Your task to perform on an android device: open app "Microsoft Outlook" (install if not already installed) and go to login screen Image 0: 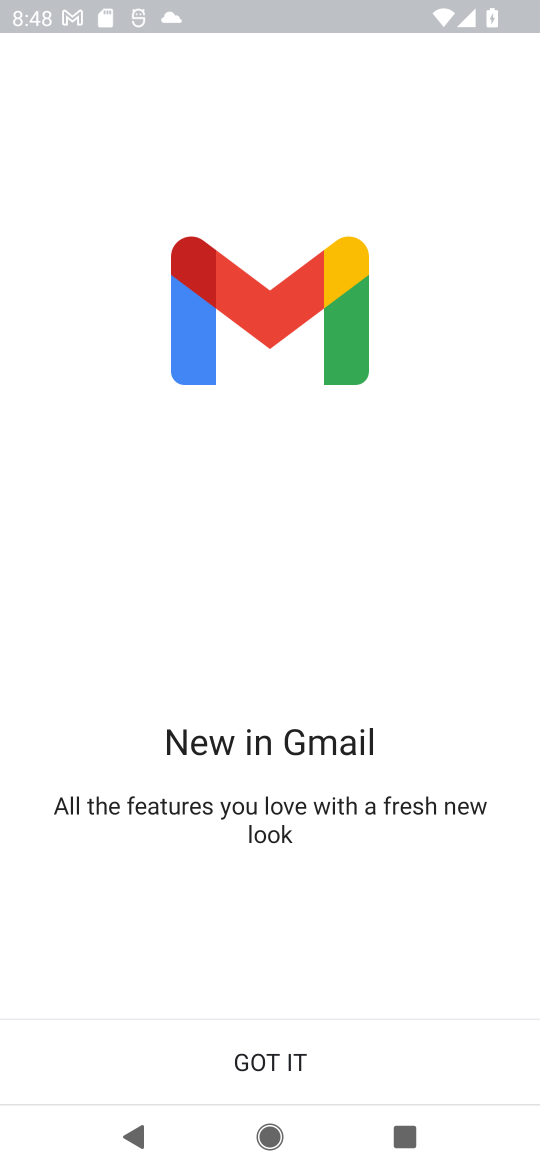
Step 0: press home button
Your task to perform on an android device: open app "Microsoft Outlook" (install if not already installed) and go to login screen Image 1: 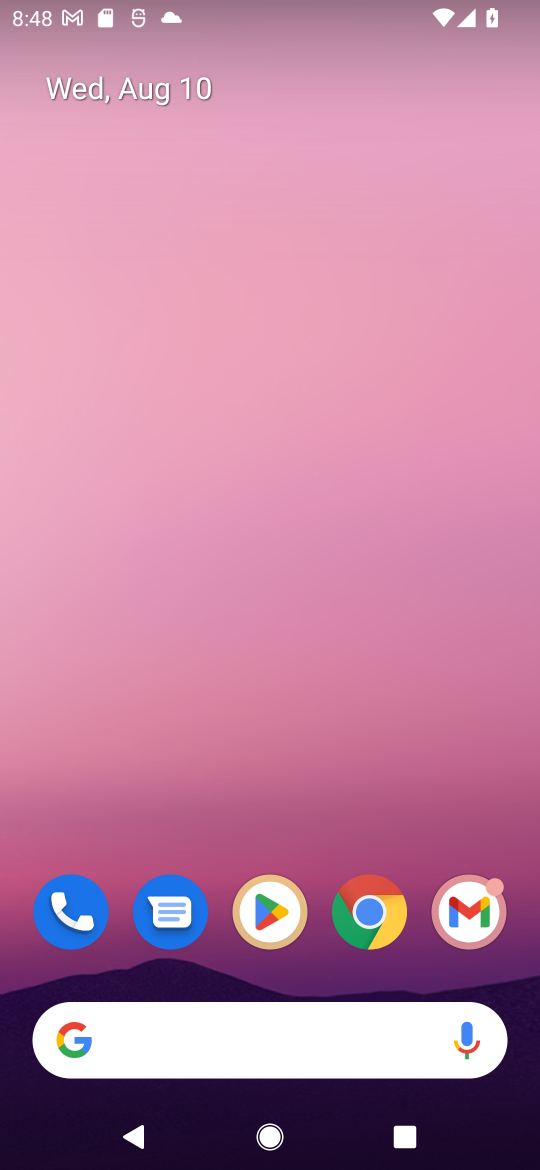
Step 1: drag from (439, 974) to (229, 125)
Your task to perform on an android device: open app "Microsoft Outlook" (install if not already installed) and go to login screen Image 2: 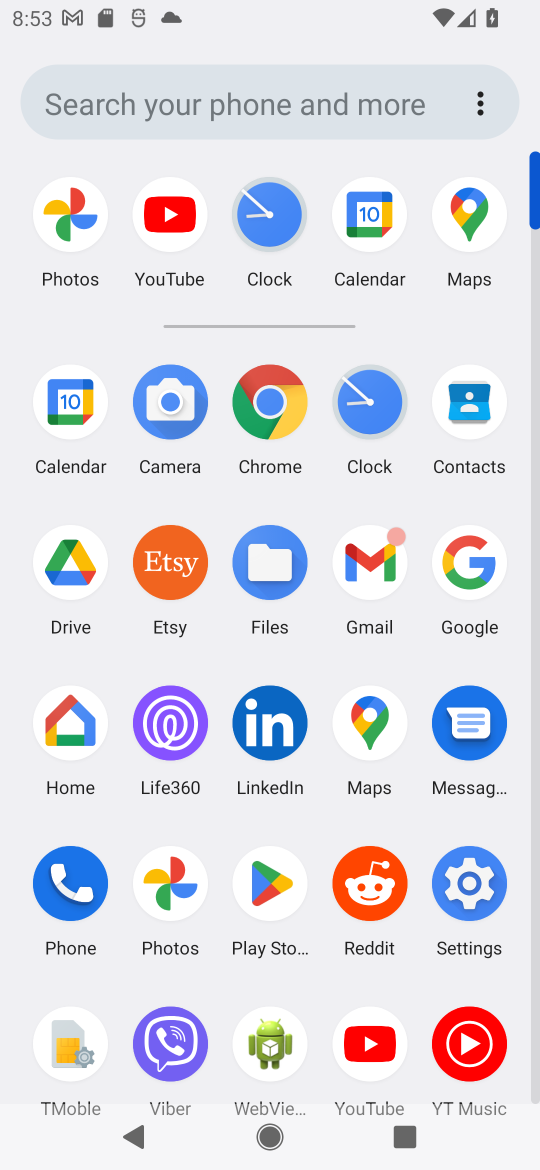
Step 2: click (261, 878)
Your task to perform on an android device: open app "Microsoft Outlook" (install if not already installed) and go to login screen Image 3: 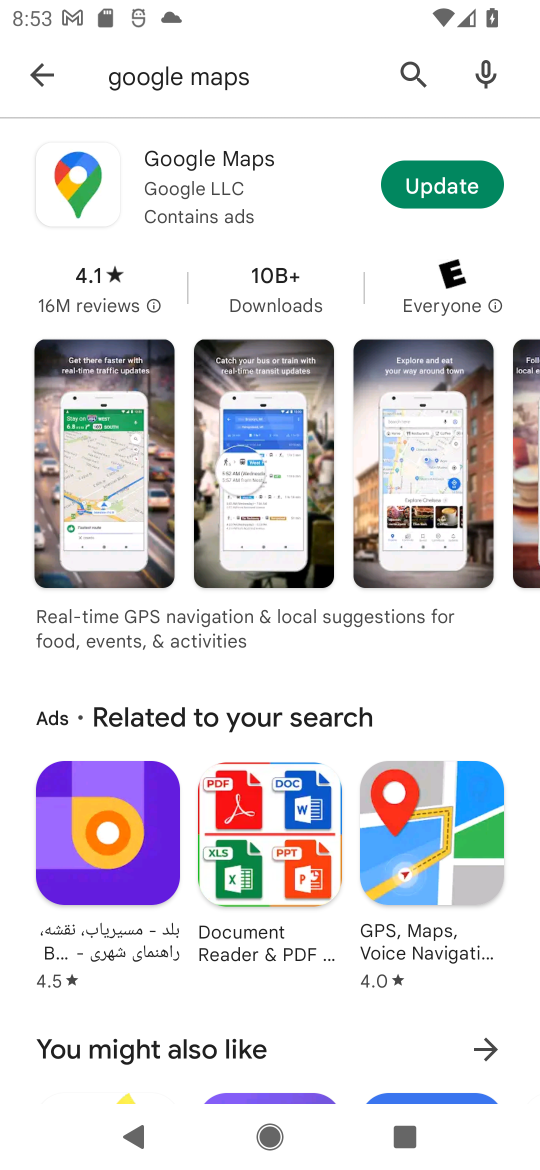
Step 3: press back button
Your task to perform on an android device: open app "Microsoft Outlook" (install if not already installed) and go to login screen Image 4: 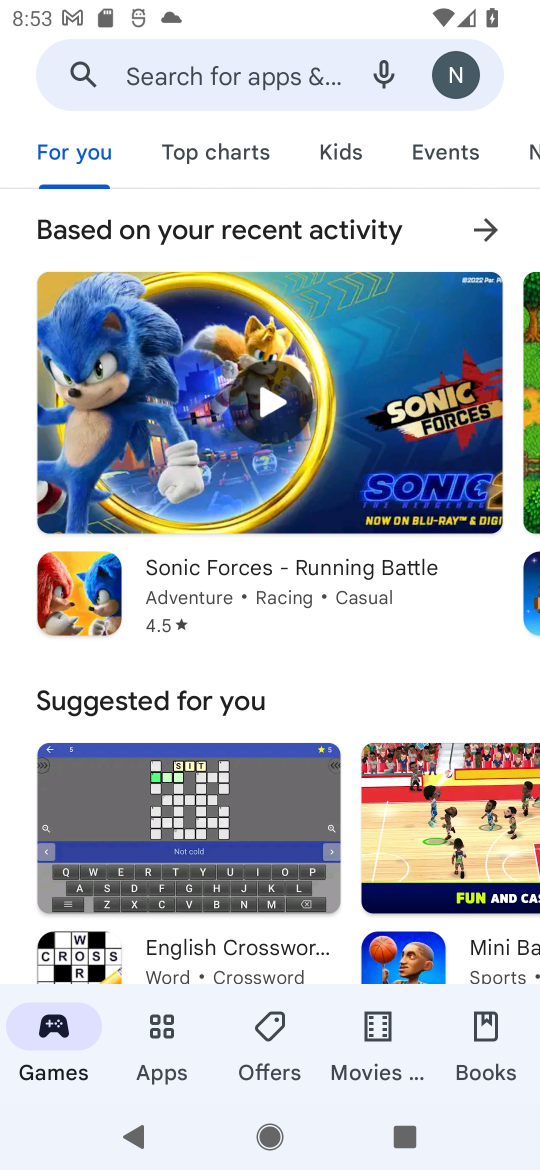
Step 4: click (144, 71)
Your task to perform on an android device: open app "Microsoft Outlook" (install if not already installed) and go to login screen Image 5: 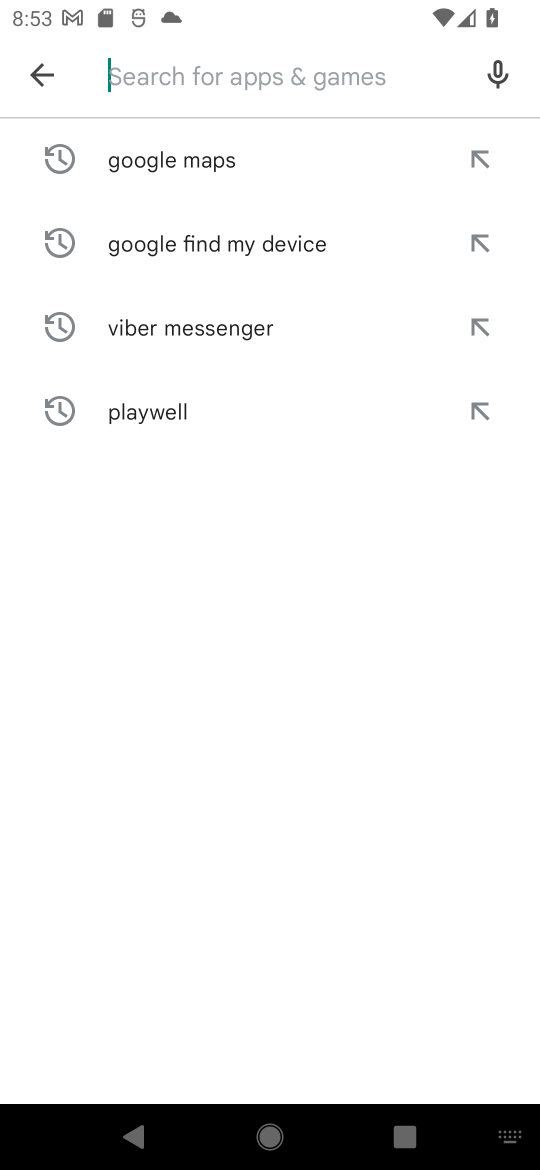
Step 5: type "Microsoft Outlook"
Your task to perform on an android device: open app "Microsoft Outlook" (install if not already installed) and go to login screen Image 6: 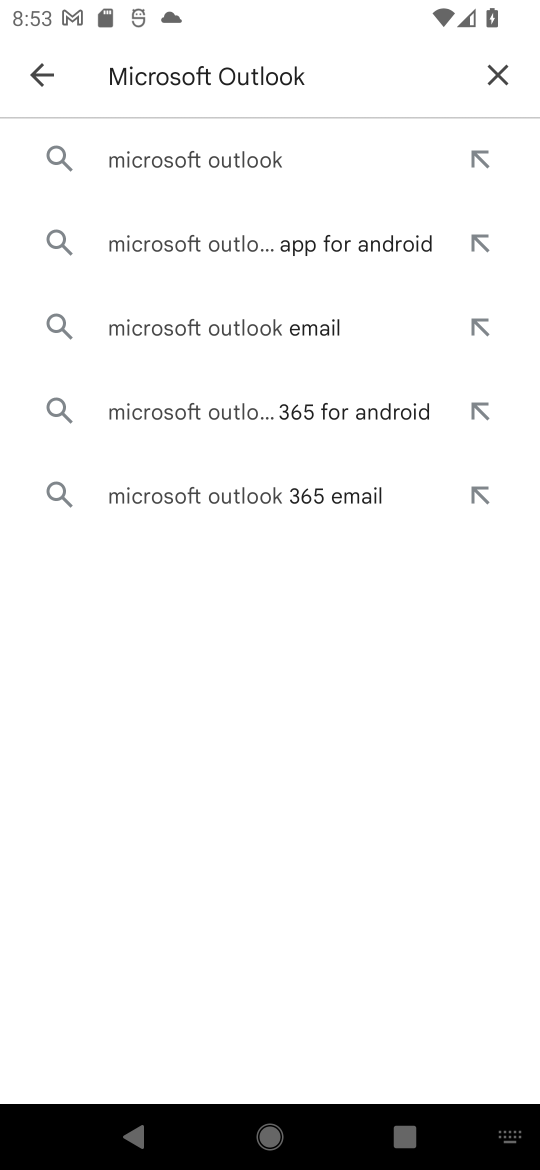
Step 6: click (152, 188)
Your task to perform on an android device: open app "Microsoft Outlook" (install if not already installed) and go to login screen Image 7: 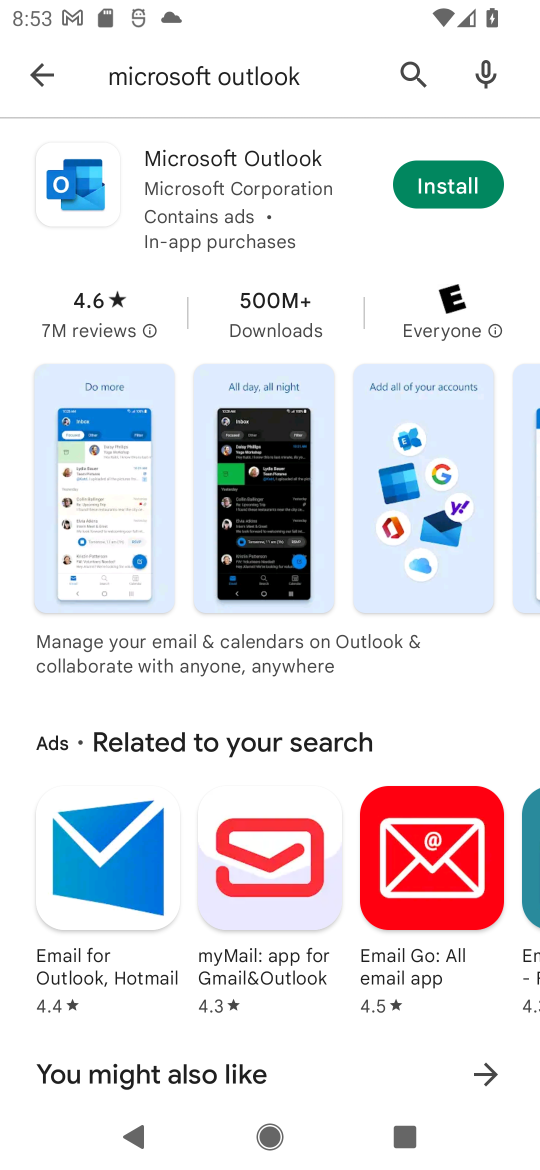
Step 7: task complete